Your task to perform on an android device: Open Chrome and go to the settings page Image 0: 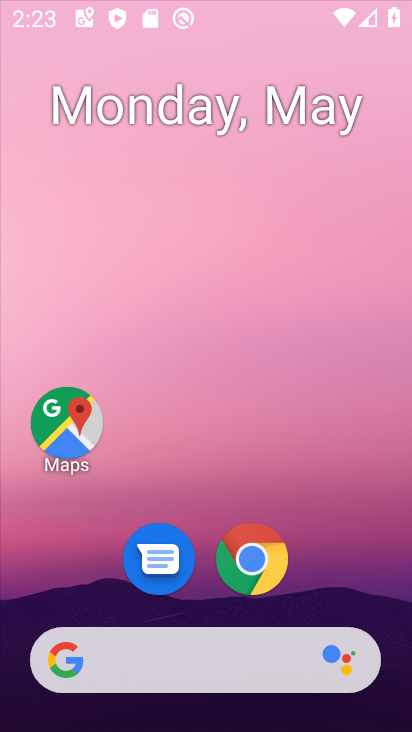
Step 0: click (273, 555)
Your task to perform on an android device: Open Chrome and go to the settings page Image 1: 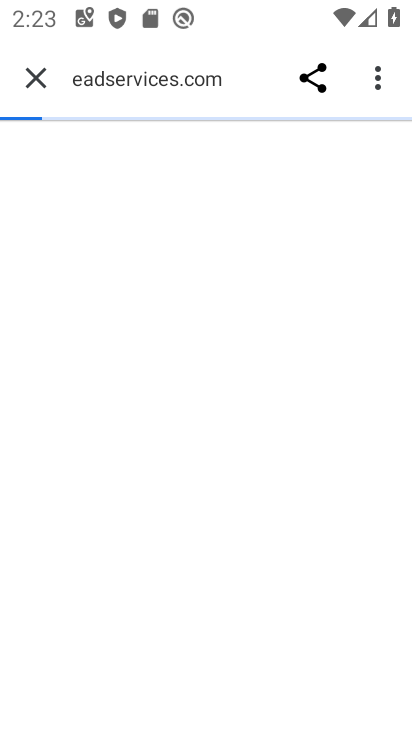
Step 1: press home button
Your task to perform on an android device: Open Chrome and go to the settings page Image 2: 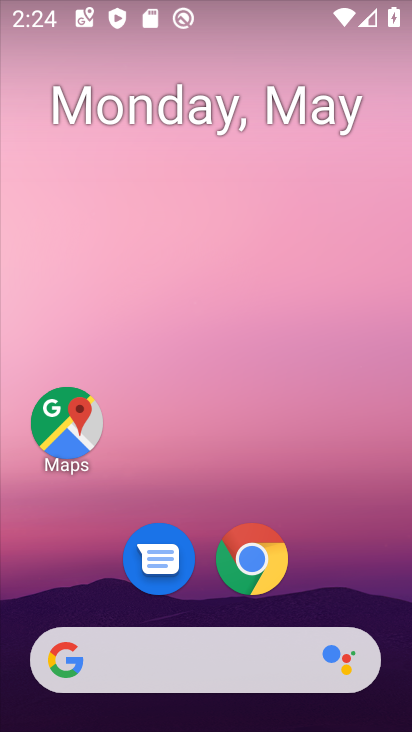
Step 2: click (263, 555)
Your task to perform on an android device: Open Chrome and go to the settings page Image 3: 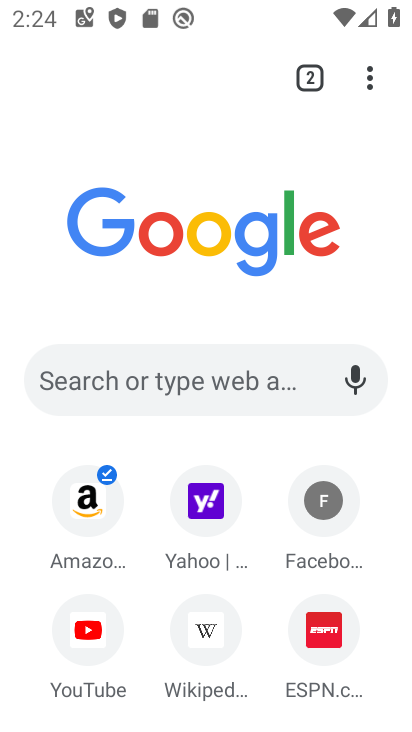
Step 3: click (382, 70)
Your task to perform on an android device: Open Chrome and go to the settings page Image 4: 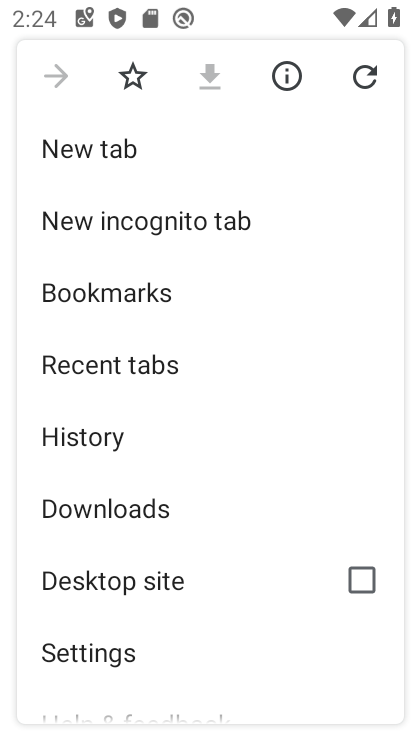
Step 4: click (127, 643)
Your task to perform on an android device: Open Chrome and go to the settings page Image 5: 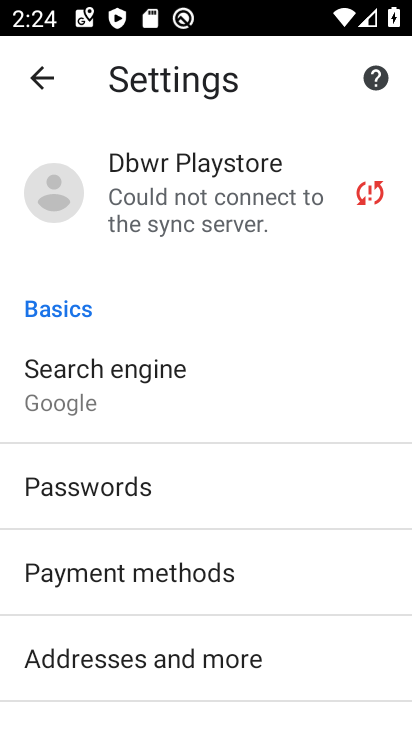
Step 5: task complete